Your task to perform on an android device: Open Amazon Image 0: 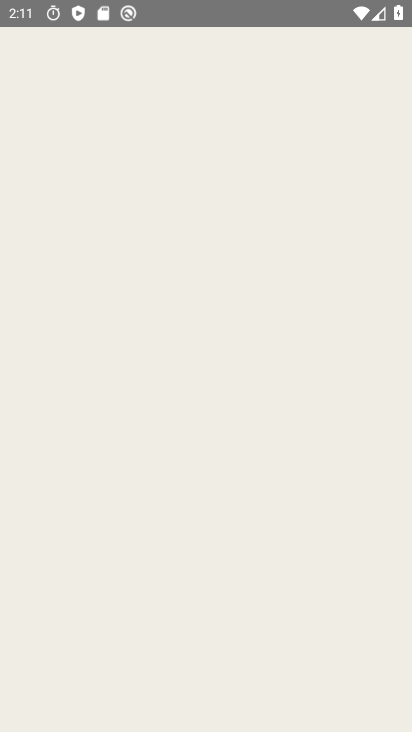
Step 0: click (276, 435)
Your task to perform on an android device: Open Amazon Image 1: 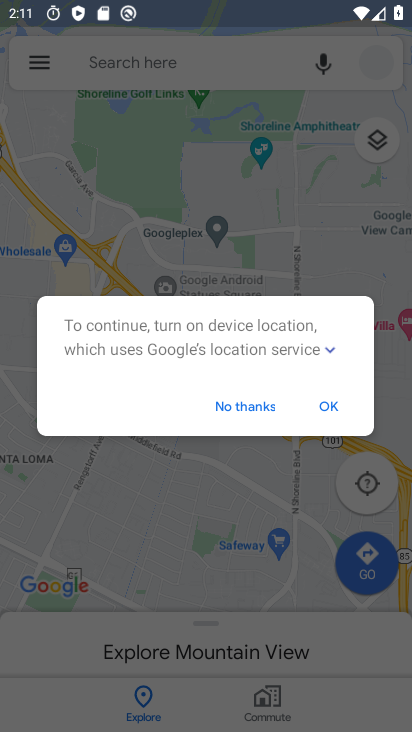
Step 1: press home button
Your task to perform on an android device: Open Amazon Image 2: 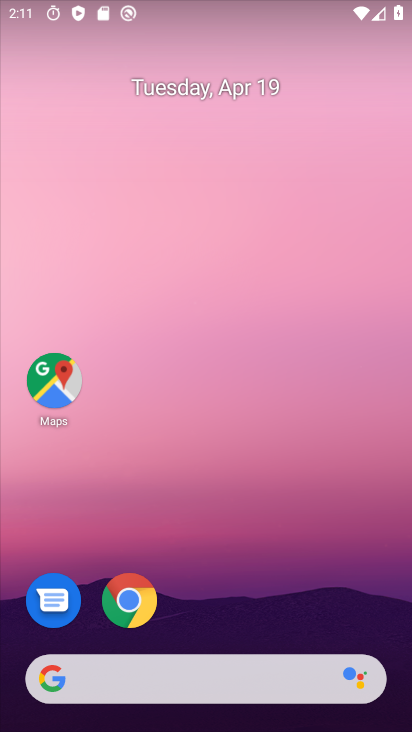
Step 2: drag from (308, 714) to (309, 355)
Your task to perform on an android device: Open Amazon Image 3: 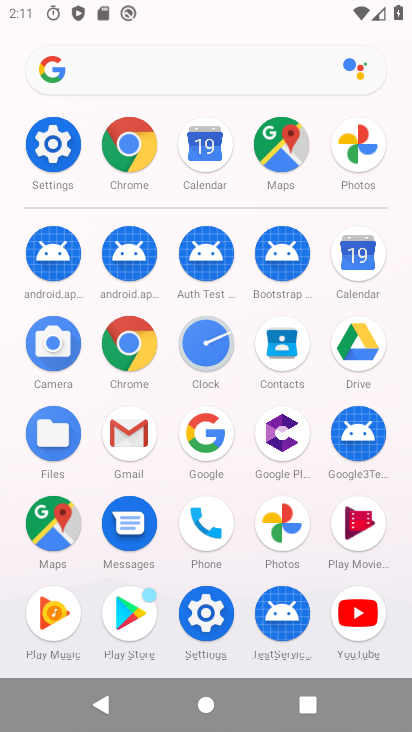
Step 3: click (139, 363)
Your task to perform on an android device: Open Amazon Image 4: 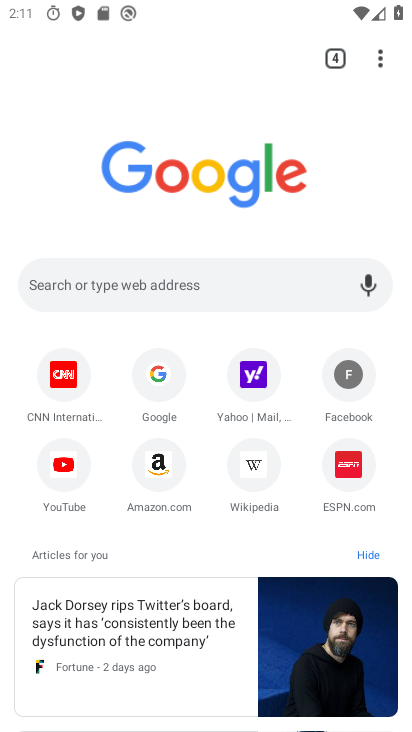
Step 4: click (169, 481)
Your task to perform on an android device: Open Amazon Image 5: 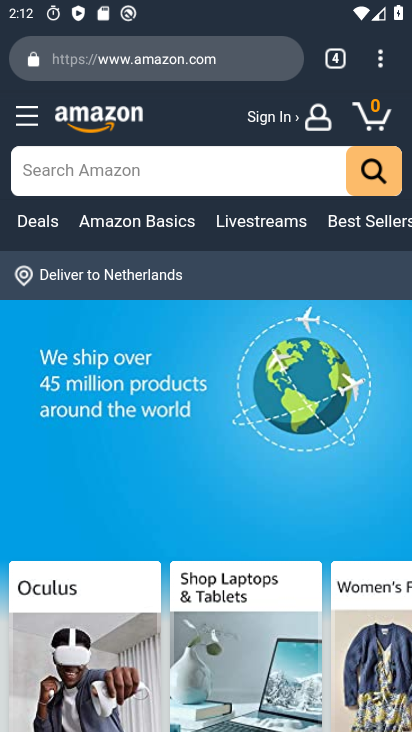
Step 5: task complete